Your task to perform on an android device: change notification settings in the gmail app Image 0: 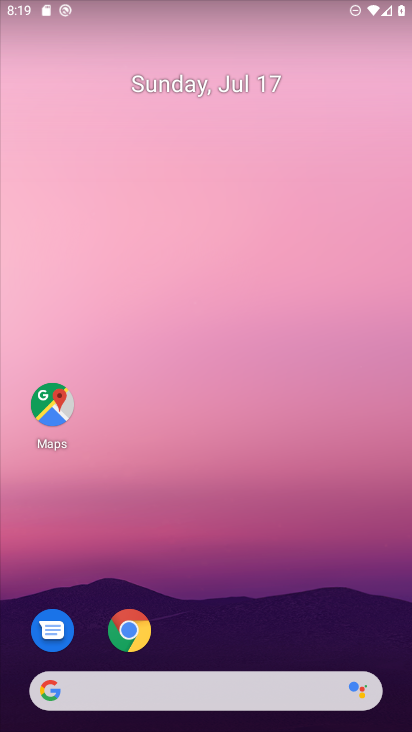
Step 0: drag from (380, 623) to (155, 101)
Your task to perform on an android device: change notification settings in the gmail app Image 1: 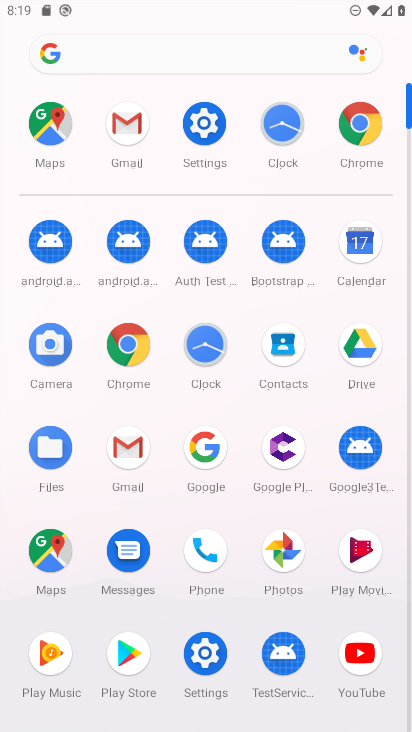
Step 1: click (125, 452)
Your task to perform on an android device: change notification settings in the gmail app Image 2: 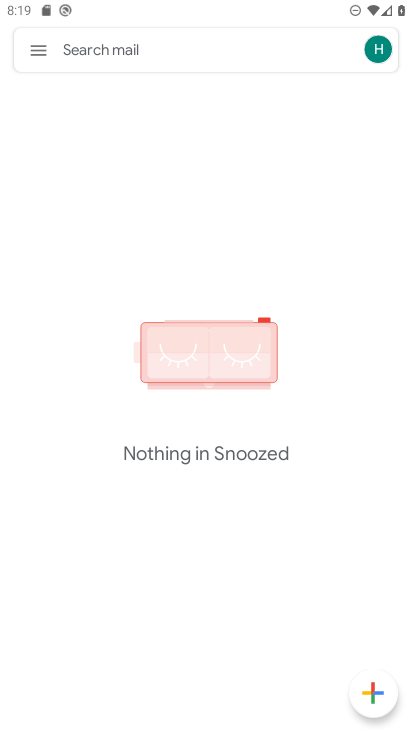
Step 2: click (34, 60)
Your task to perform on an android device: change notification settings in the gmail app Image 3: 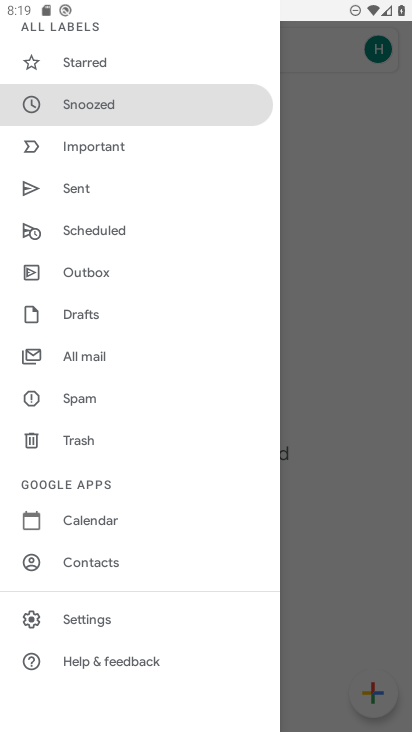
Step 3: click (92, 612)
Your task to perform on an android device: change notification settings in the gmail app Image 4: 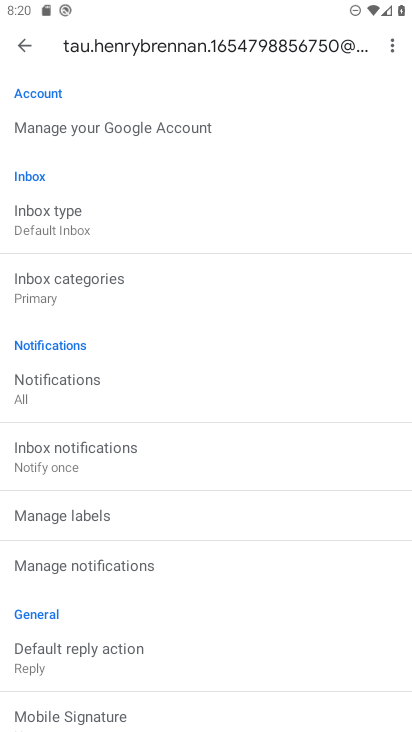
Step 4: click (100, 394)
Your task to perform on an android device: change notification settings in the gmail app Image 5: 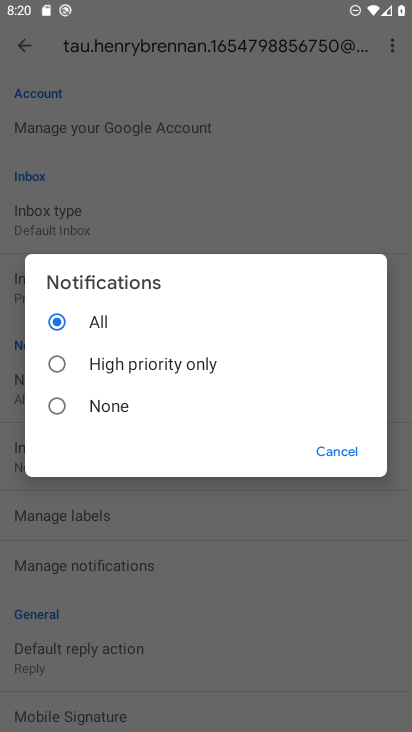
Step 5: click (100, 411)
Your task to perform on an android device: change notification settings in the gmail app Image 6: 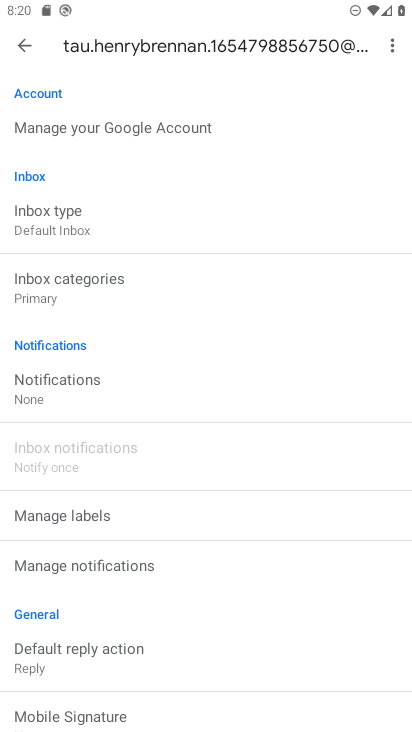
Step 6: task complete